Your task to perform on an android device: check android version Image 0: 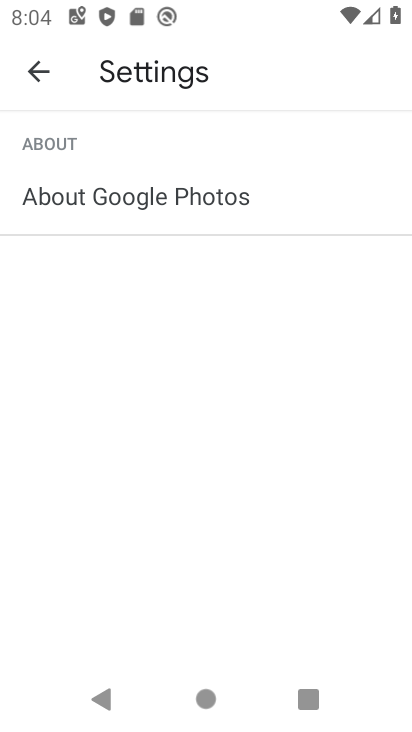
Step 0: press home button
Your task to perform on an android device: check android version Image 1: 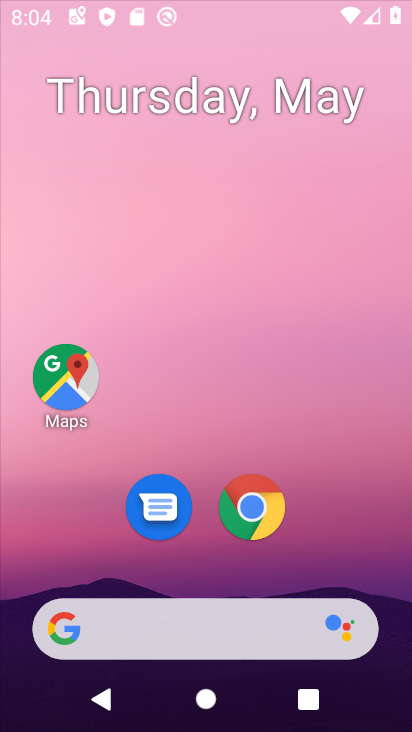
Step 1: drag from (232, 650) to (193, 245)
Your task to perform on an android device: check android version Image 2: 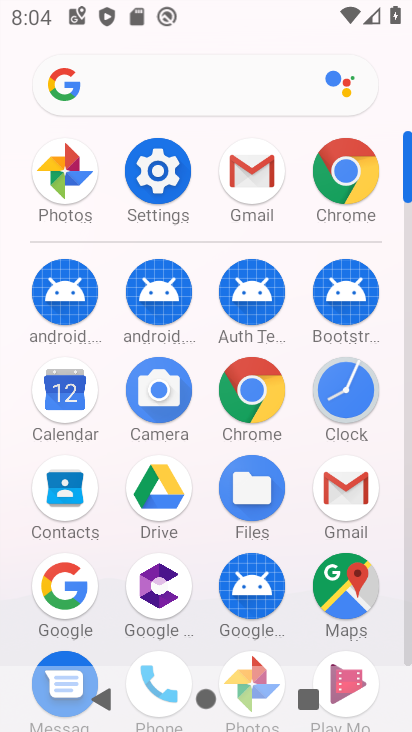
Step 2: click (175, 179)
Your task to perform on an android device: check android version Image 3: 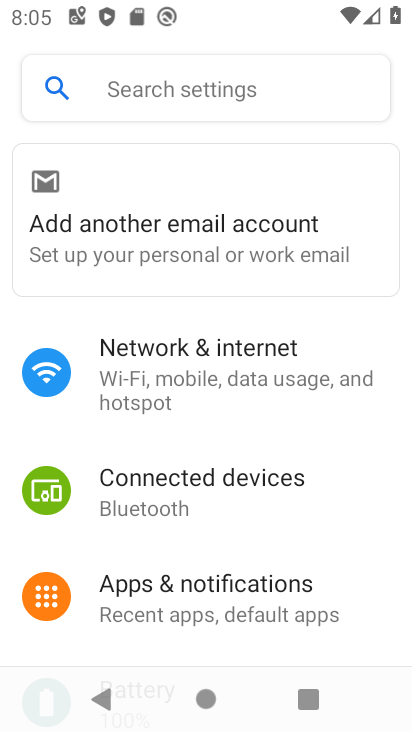
Step 3: click (150, 96)
Your task to perform on an android device: check android version Image 4: 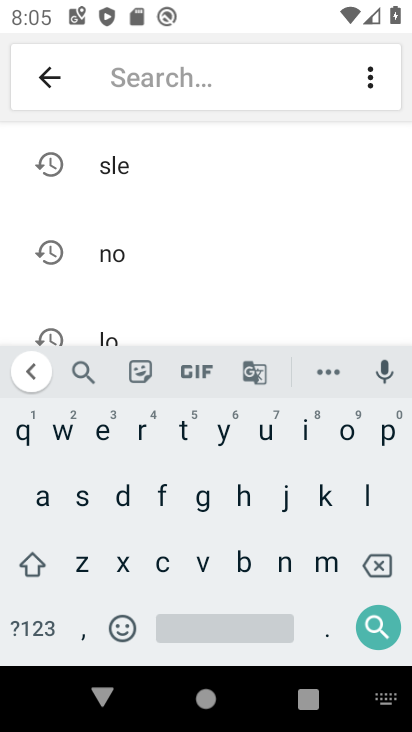
Step 4: click (39, 497)
Your task to perform on an android device: check android version Image 5: 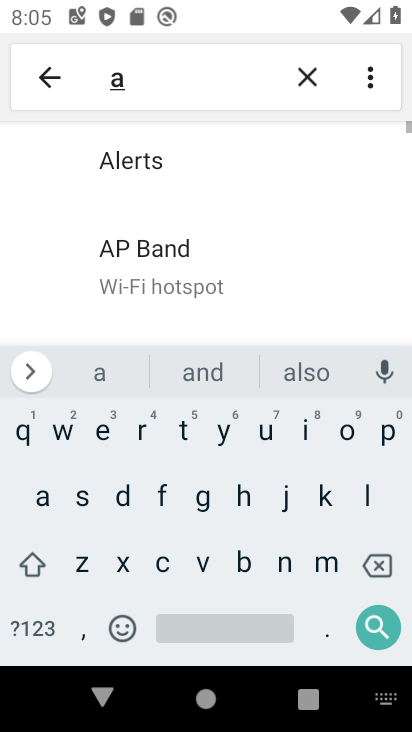
Step 5: click (283, 565)
Your task to perform on an android device: check android version Image 6: 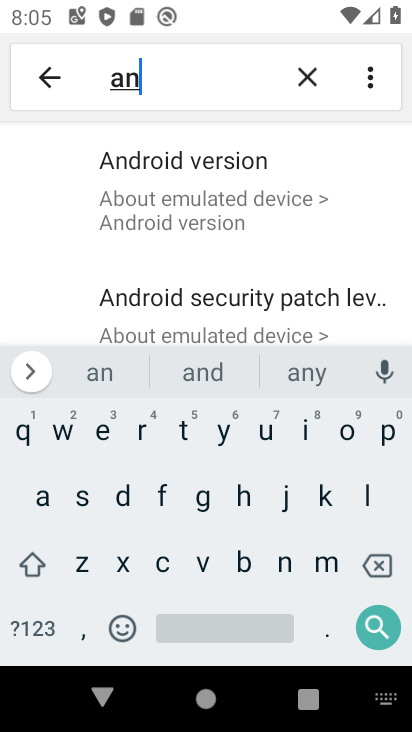
Step 6: click (224, 160)
Your task to perform on an android device: check android version Image 7: 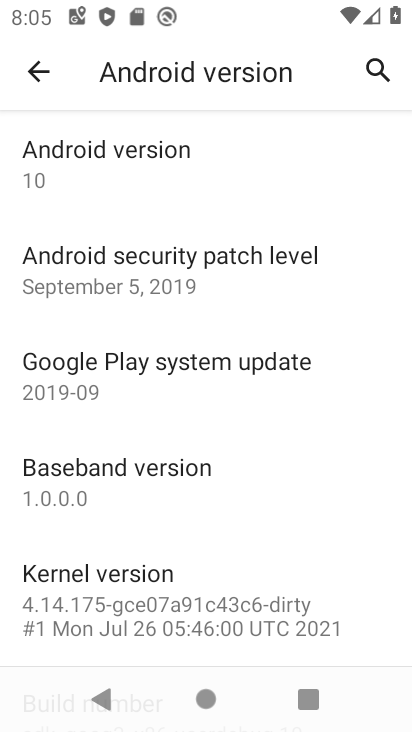
Step 7: click (224, 153)
Your task to perform on an android device: check android version Image 8: 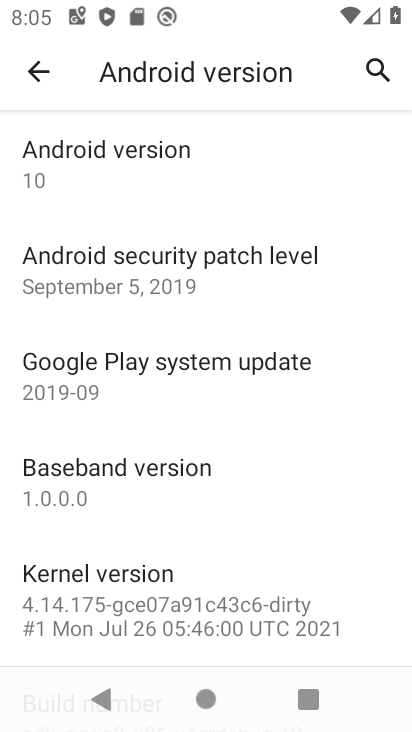
Step 8: task complete